Your task to perform on an android device: Open Wikipedia Image 0: 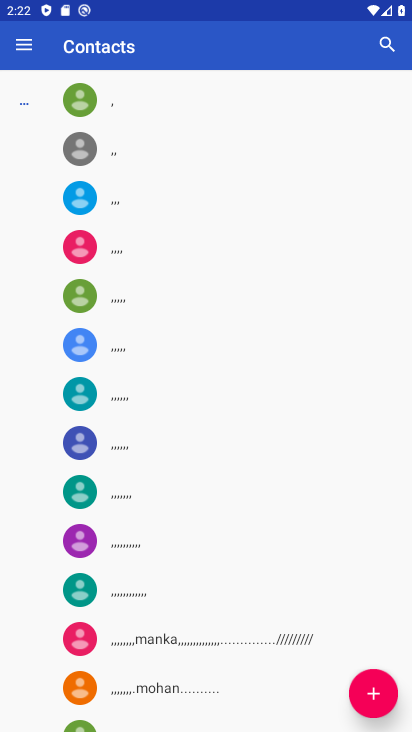
Step 0: press home button
Your task to perform on an android device: Open Wikipedia Image 1: 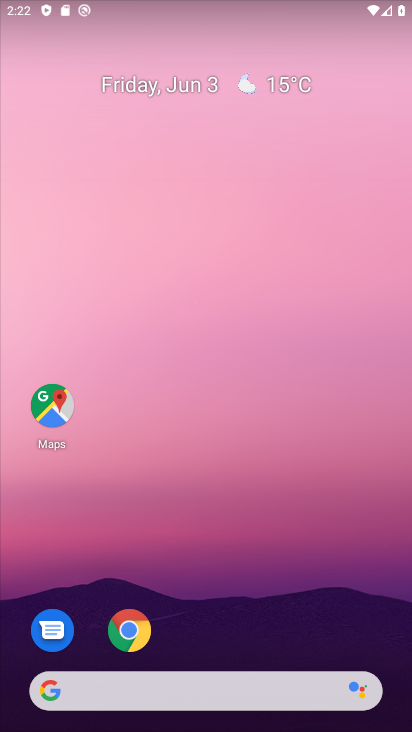
Step 1: click (115, 649)
Your task to perform on an android device: Open Wikipedia Image 2: 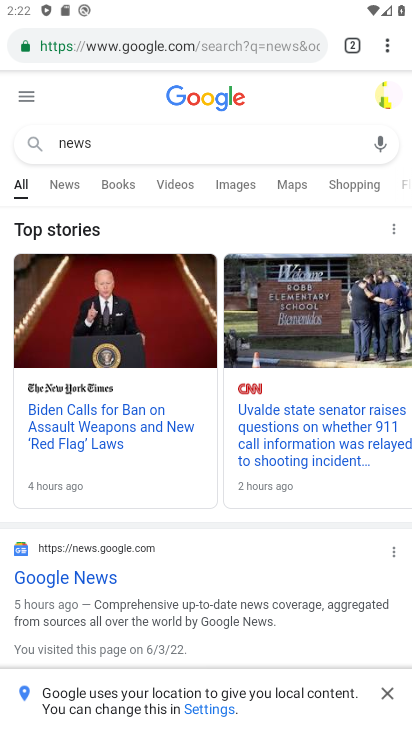
Step 2: click (220, 52)
Your task to perform on an android device: Open Wikipedia Image 3: 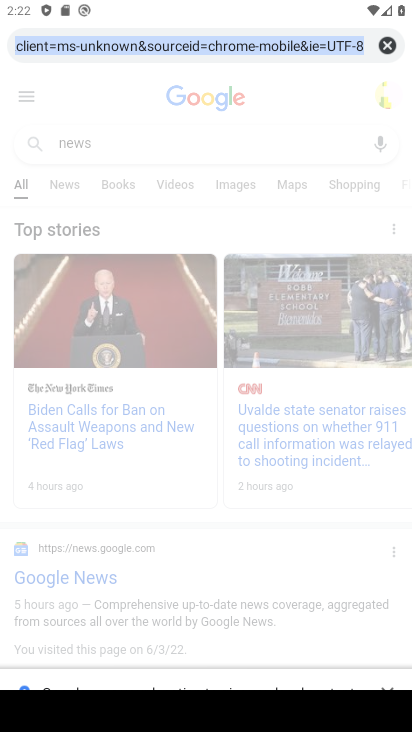
Step 3: click (393, 41)
Your task to perform on an android device: Open Wikipedia Image 4: 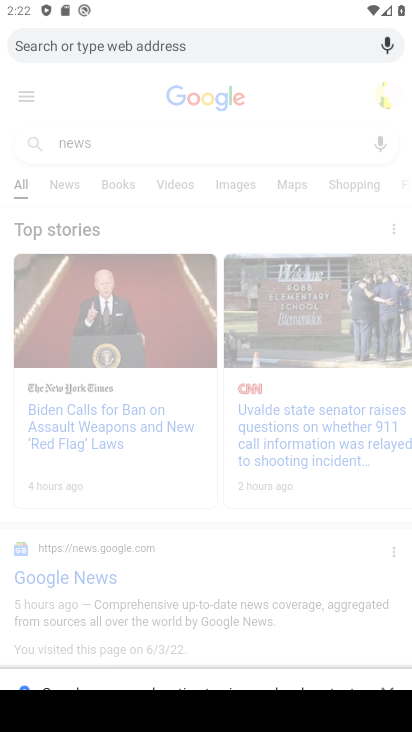
Step 4: type "Wikipedia"
Your task to perform on an android device: Open Wikipedia Image 5: 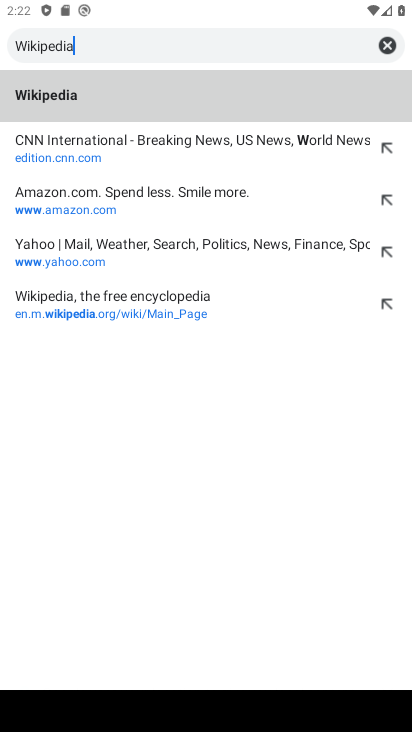
Step 5: type ""
Your task to perform on an android device: Open Wikipedia Image 6: 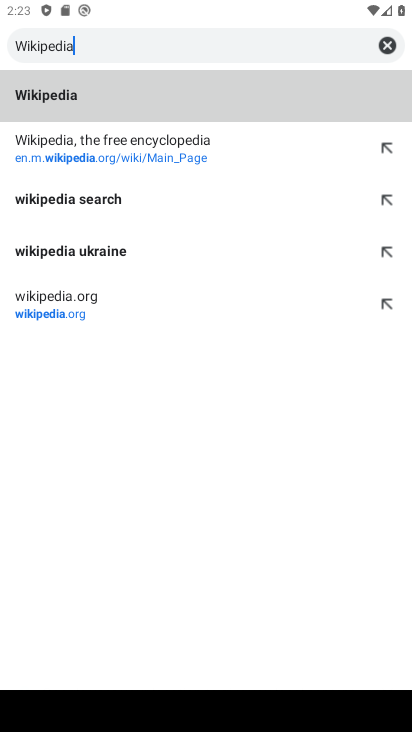
Step 6: click (116, 337)
Your task to perform on an android device: Open Wikipedia Image 7: 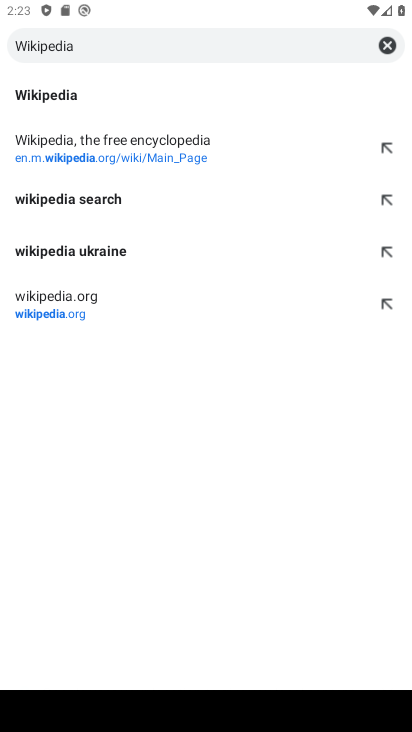
Step 7: click (68, 296)
Your task to perform on an android device: Open Wikipedia Image 8: 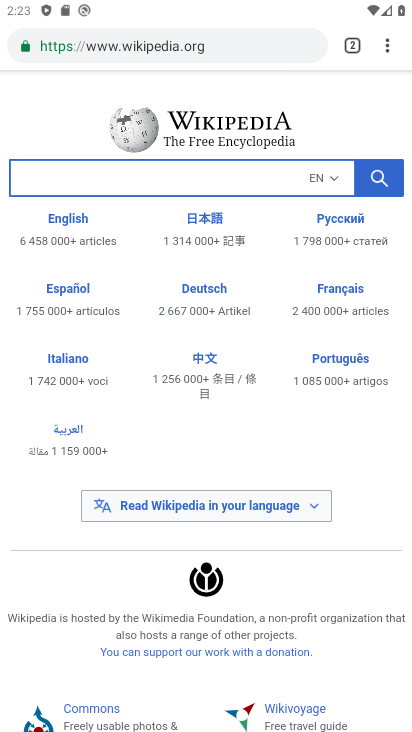
Step 8: task complete